Your task to perform on an android device: What's the weather today? Image 0: 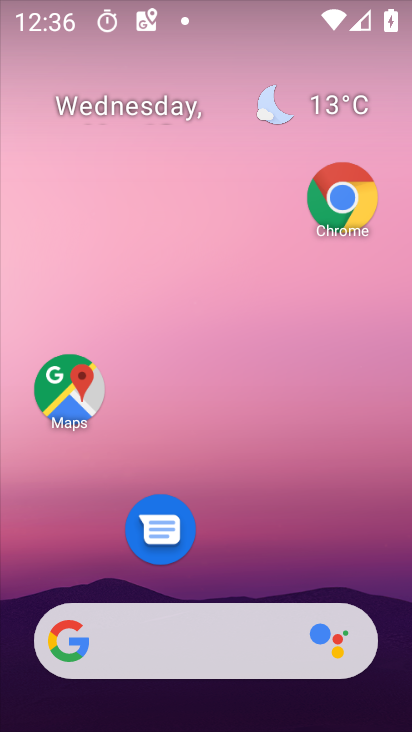
Step 0: click (332, 109)
Your task to perform on an android device: What's the weather today? Image 1: 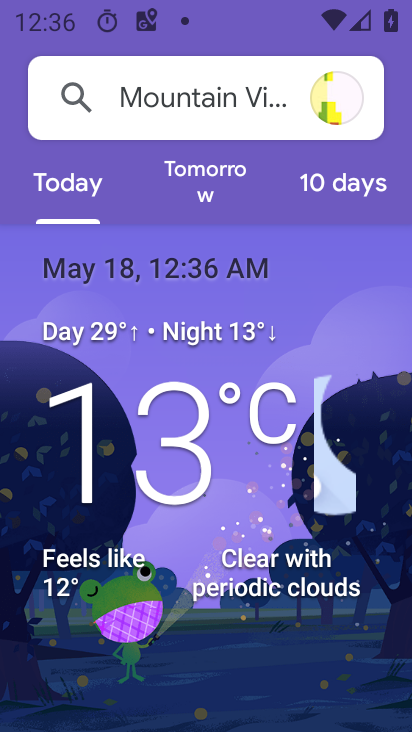
Step 1: click (310, 184)
Your task to perform on an android device: What's the weather today? Image 2: 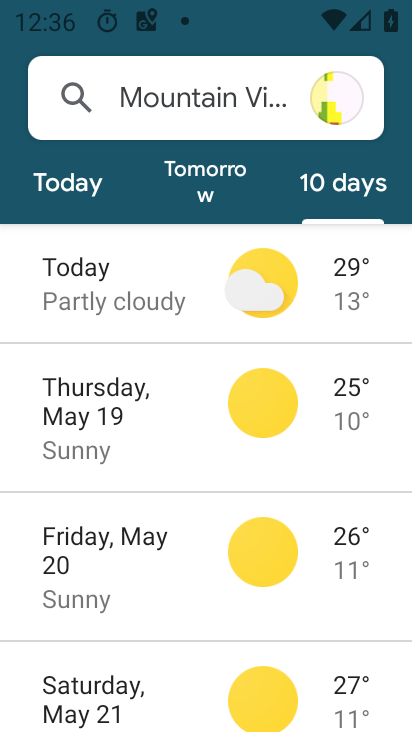
Step 2: task complete